Your task to perform on an android device: open a new tab in the chrome app Image 0: 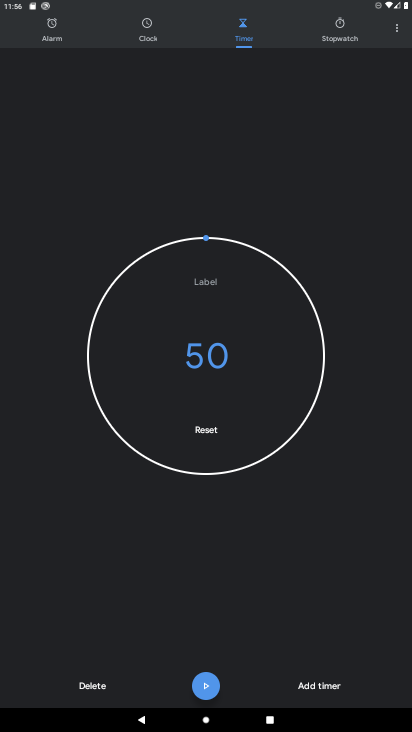
Step 0: press home button
Your task to perform on an android device: open a new tab in the chrome app Image 1: 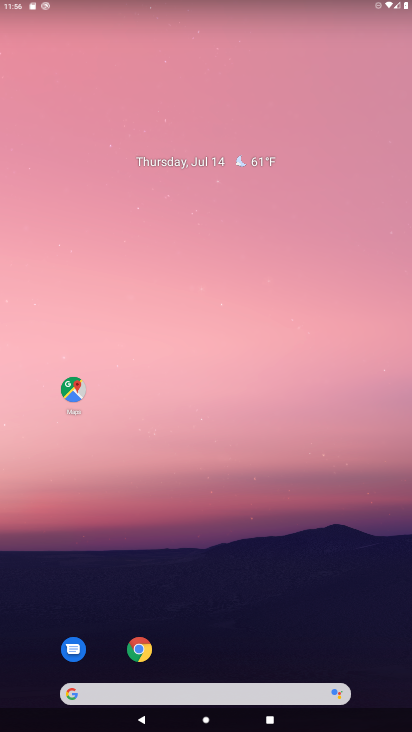
Step 1: click (143, 655)
Your task to perform on an android device: open a new tab in the chrome app Image 2: 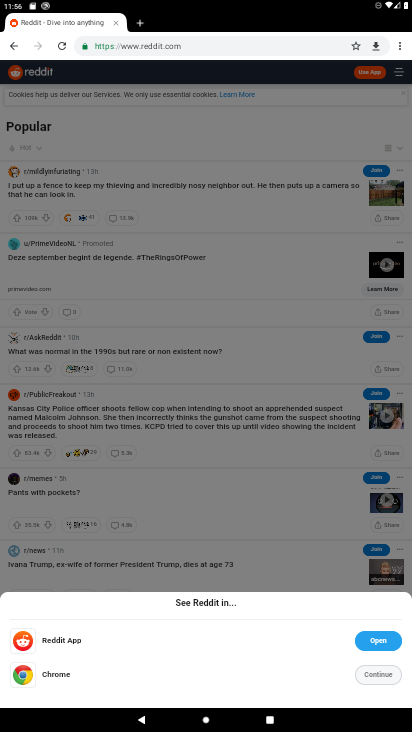
Step 2: click (402, 50)
Your task to perform on an android device: open a new tab in the chrome app Image 3: 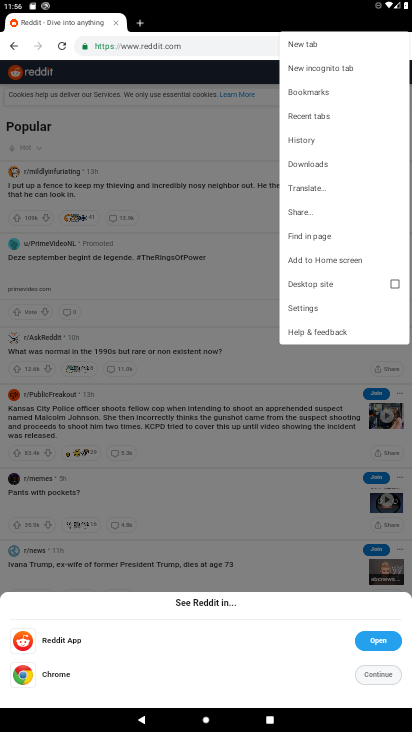
Step 3: click (299, 44)
Your task to perform on an android device: open a new tab in the chrome app Image 4: 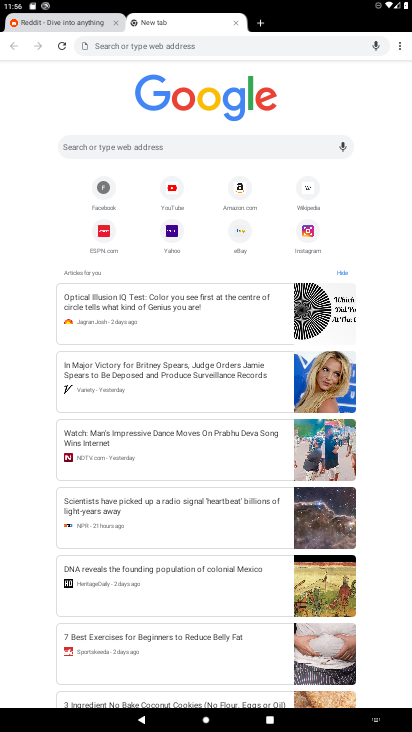
Step 4: task complete